Your task to perform on an android device: see sites visited before in the chrome app Image 0: 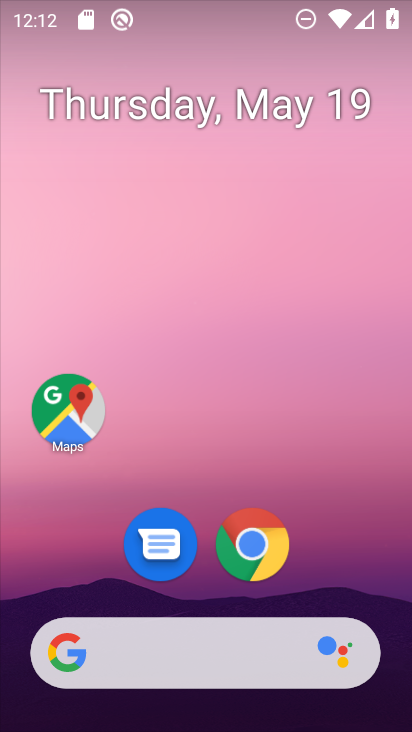
Step 0: click (274, 559)
Your task to perform on an android device: see sites visited before in the chrome app Image 1: 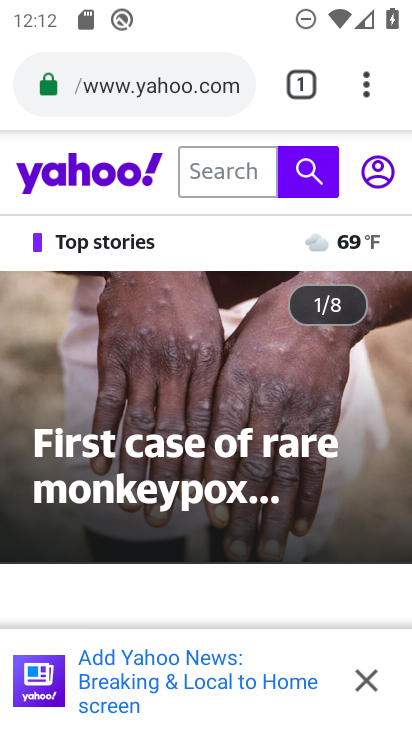
Step 1: click (358, 95)
Your task to perform on an android device: see sites visited before in the chrome app Image 2: 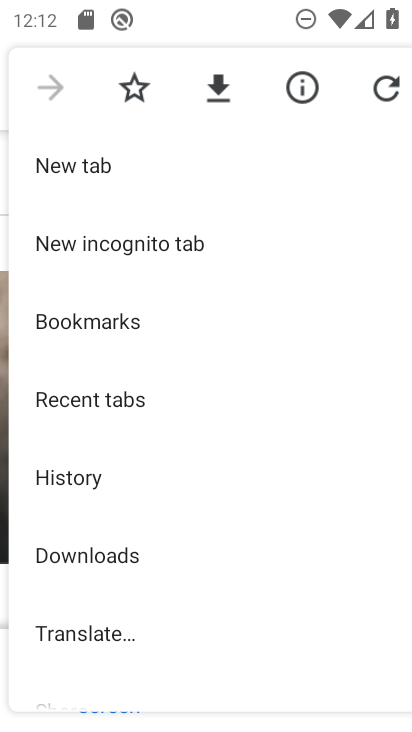
Step 2: click (207, 397)
Your task to perform on an android device: see sites visited before in the chrome app Image 3: 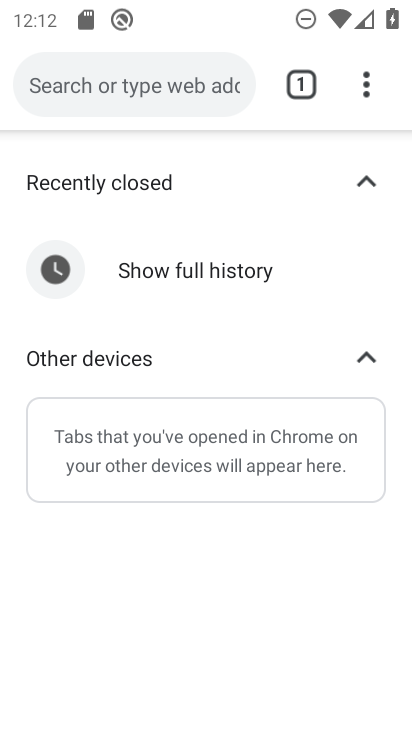
Step 3: task complete